Your task to perform on an android device: Open ESPN.com Image 0: 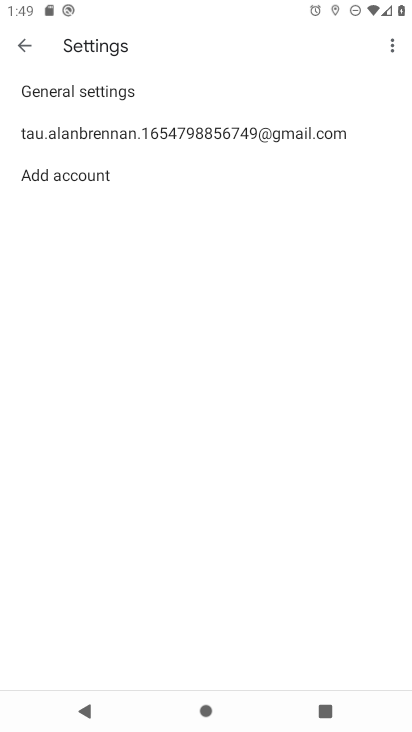
Step 0: press home button
Your task to perform on an android device: Open ESPN.com Image 1: 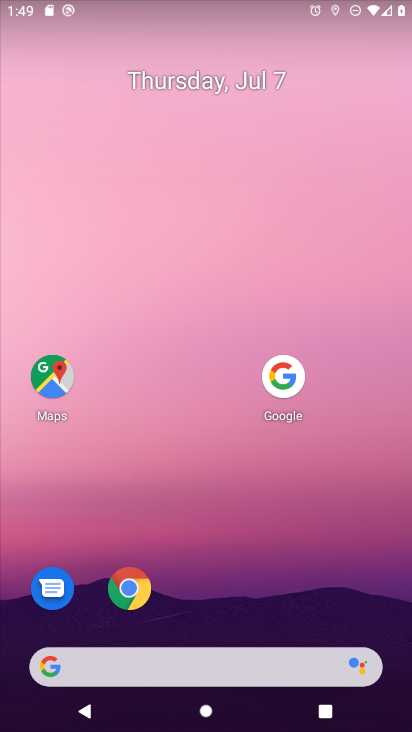
Step 1: click (125, 590)
Your task to perform on an android device: Open ESPN.com Image 2: 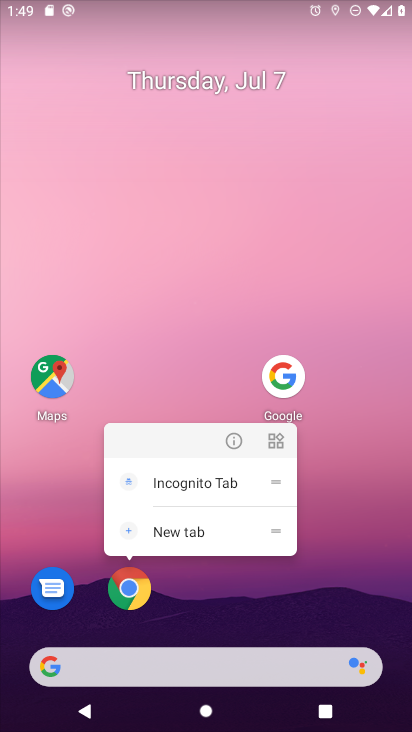
Step 2: click (133, 585)
Your task to perform on an android device: Open ESPN.com Image 3: 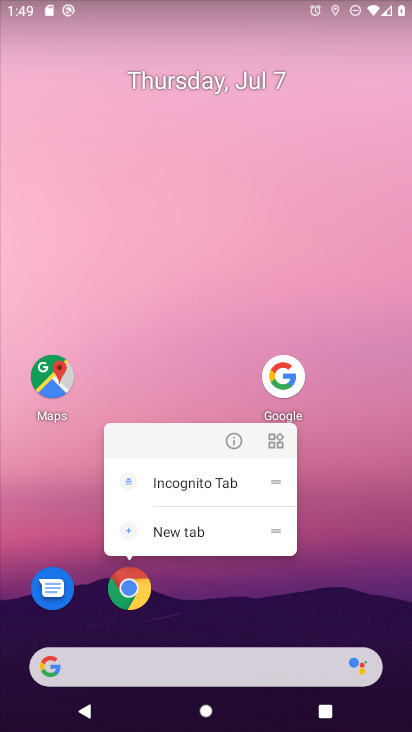
Step 3: click (134, 592)
Your task to perform on an android device: Open ESPN.com Image 4: 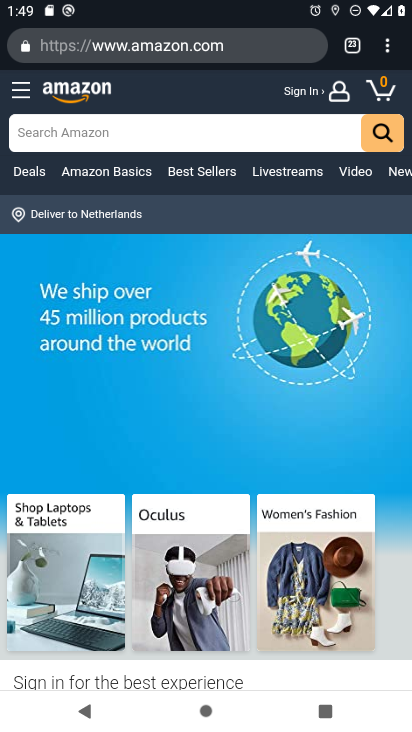
Step 4: drag from (387, 50) to (241, 86)
Your task to perform on an android device: Open ESPN.com Image 5: 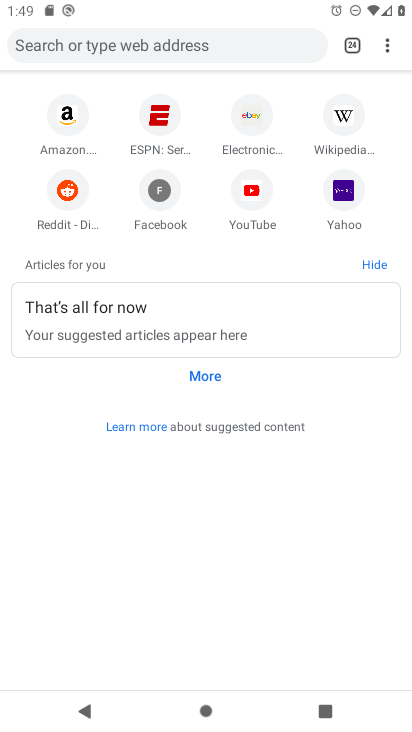
Step 5: click (163, 123)
Your task to perform on an android device: Open ESPN.com Image 6: 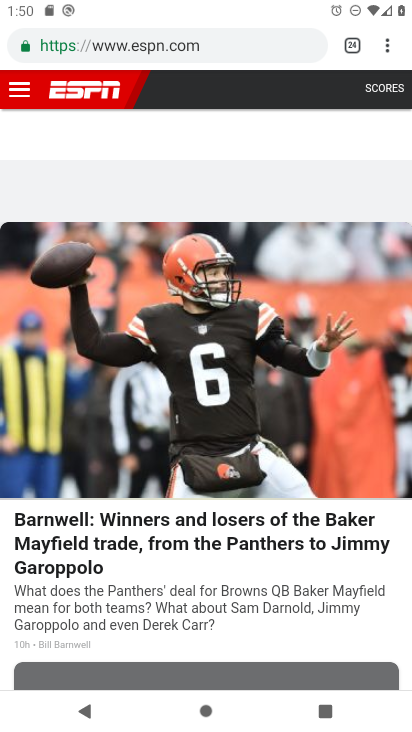
Step 6: task complete